Your task to perform on an android device: Search for seafood restaurants on Google Maps Image 0: 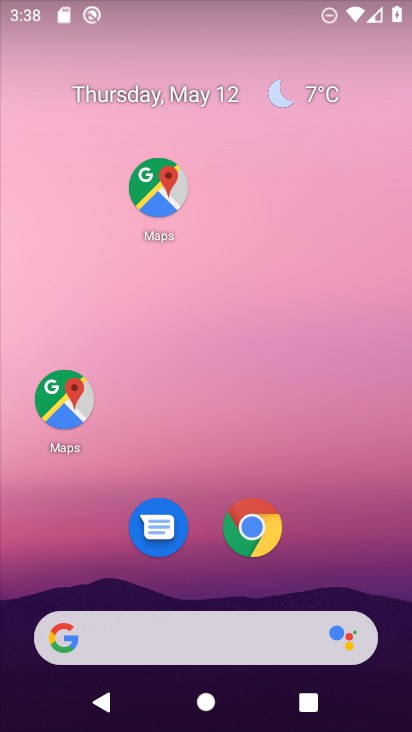
Step 0: drag from (204, 586) to (232, 0)
Your task to perform on an android device: Search for seafood restaurants on Google Maps Image 1: 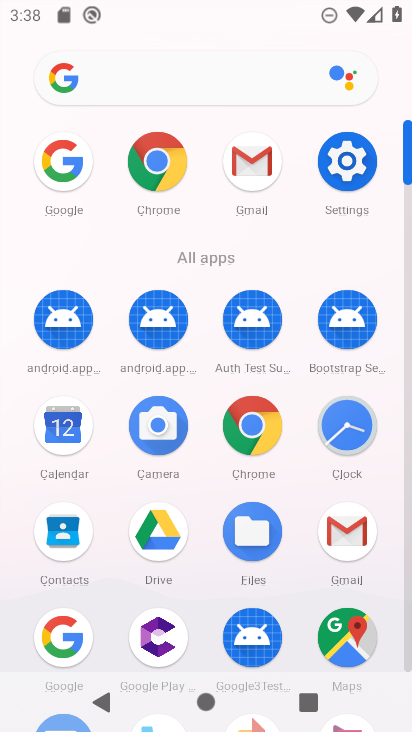
Step 1: click (360, 632)
Your task to perform on an android device: Search for seafood restaurants on Google Maps Image 2: 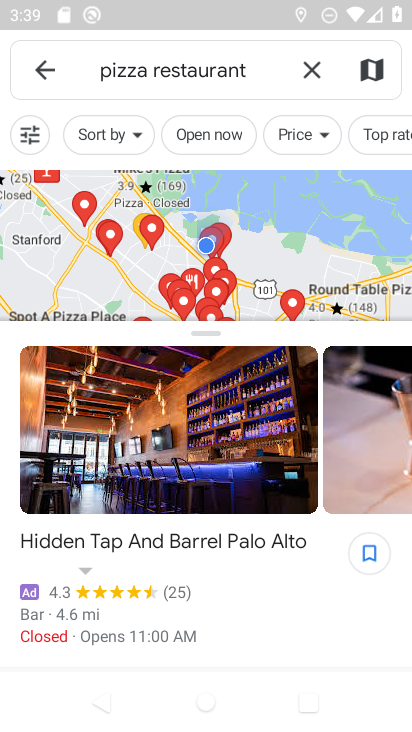
Step 2: click (313, 67)
Your task to perform on an android device: Search for seafood restaurants on Google Maps Image 3: 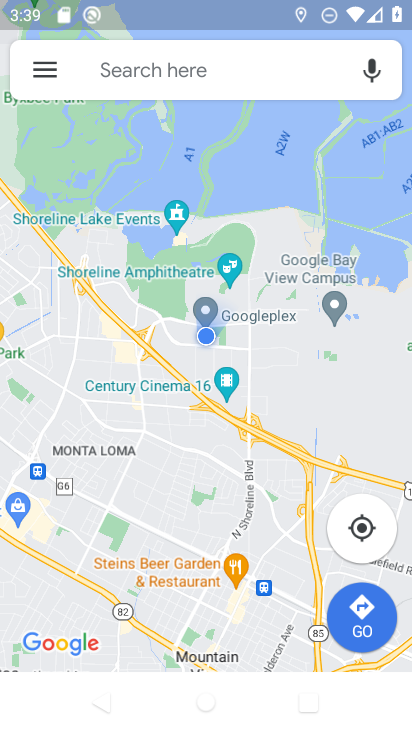
Step 3: click (173, 62)
Your task to perform on an android device: Search for seafood restaurants on Google Maps Image 4: 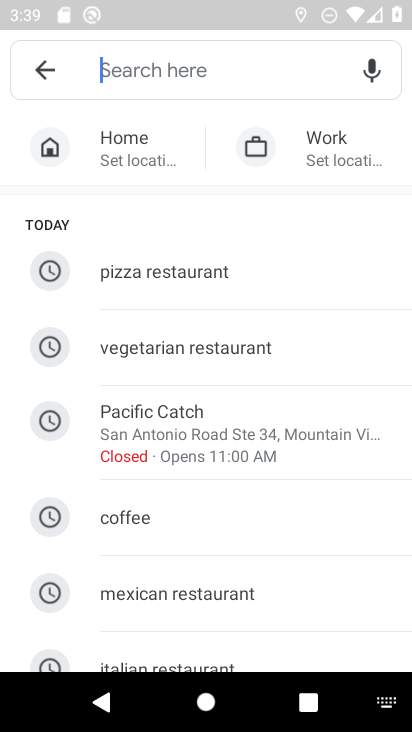
Step 4: drag from (193, 522) to (132, 194)
Your task to perform on an android device: Search for seafood restaurants on Google Maps Image 5: 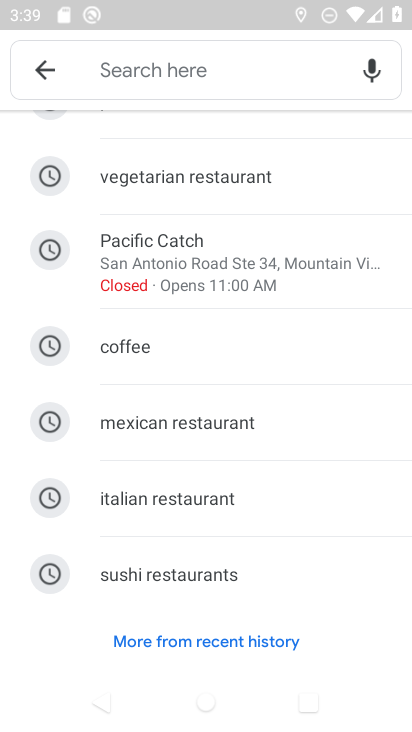
Step 5: click (187, 637)
Your task to perform on an android device: Search for seafood restaurants on Google Maps Image 6: 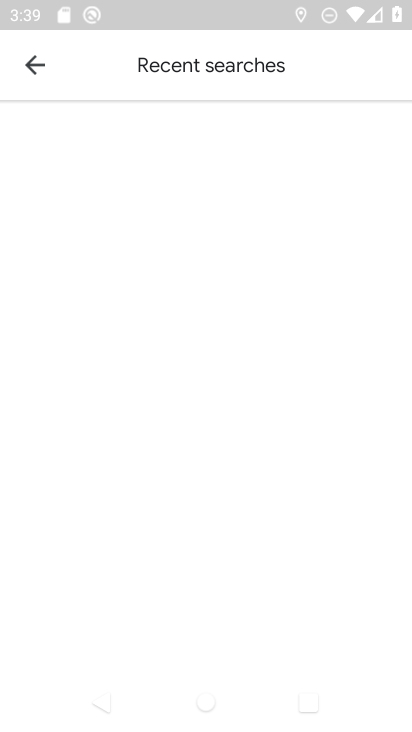
Step 6: drag from (187, 635) to (98, 157)
Your task to perform on an android device: Search for seafood restaurants on Google Maps Image 7: 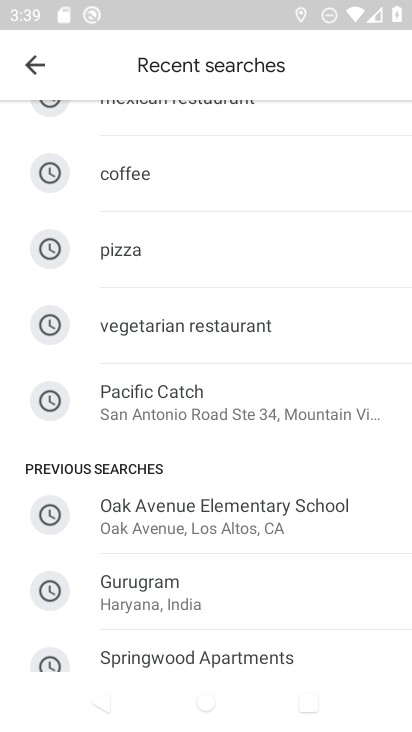
Step 7: drag from (204, 611) to (85, 5)
Your task to perform on an android device: Search for seafood restaurants on Google Maps Image 8: 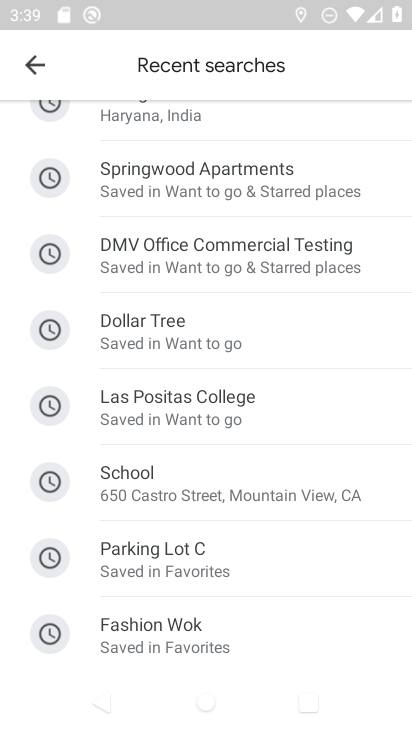
Step 8: click (155, 43)
Your task to perform on an android device: Search for seafood restaurants on Google Maps Image 9: 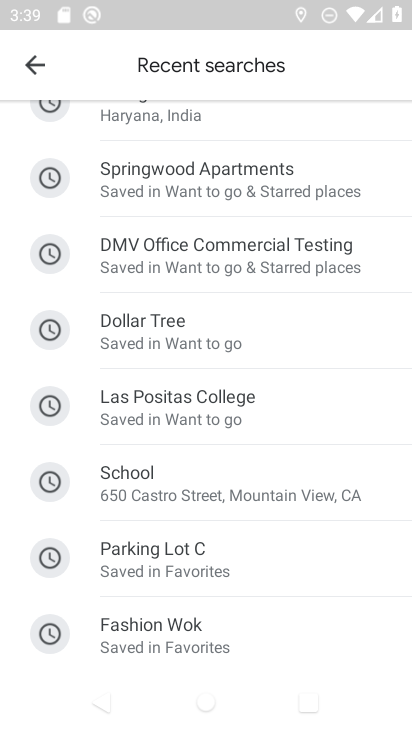
Step 9: click (35, 60)
Your task to perform on an android device: Search for seafood restaurants on Google Maps Image 10: 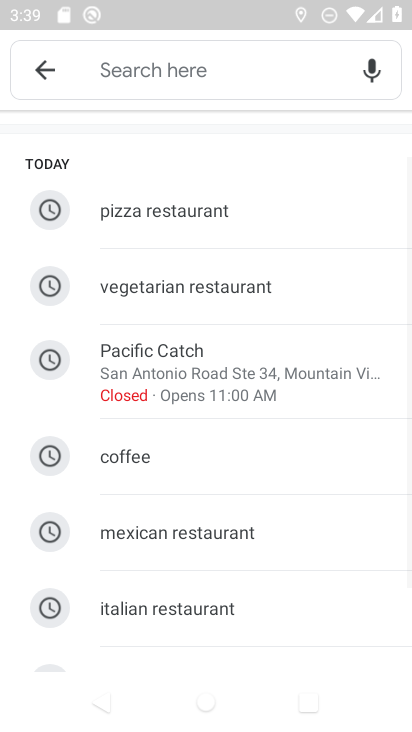
Step 10: click (183, 81)
Your task to perform on an android device: Search for seafood restaurants on Google Maps Image 11: 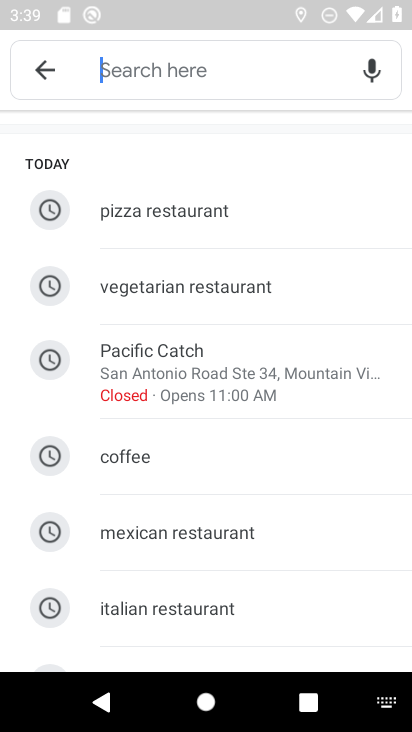
Step 11: type "seafood"
Your task to perform on an android device: Search for seafood restaurants on Google Maps Image 12: 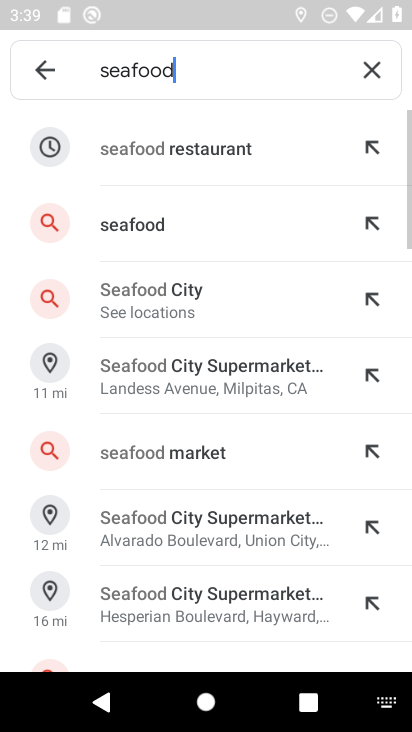
Step 12: click (218, 151)
Your task to perform on an android device: Search for seafood restaurants on Google Maps Image 13: 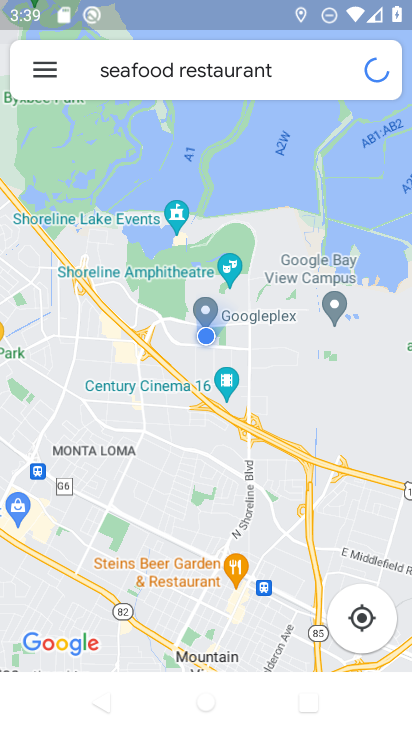
Step 13: task complete